Your task to perform on an android device: open wifi settings Image 0: 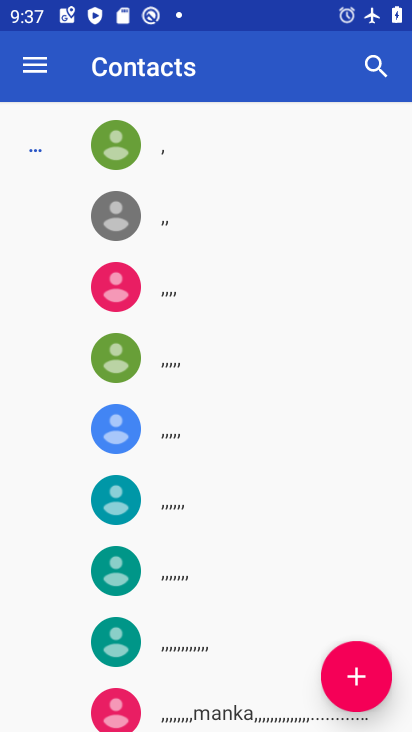
Step 0: press home button
Your task to perform on an android device: open wifi settings Image 1: 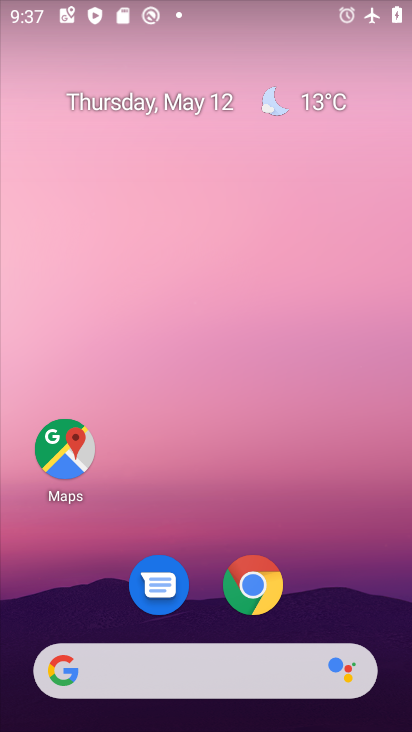
Step 1: drag from (232, 407) to (274, 49)
Your task to perform on an android device: open wifi settings Image 2: 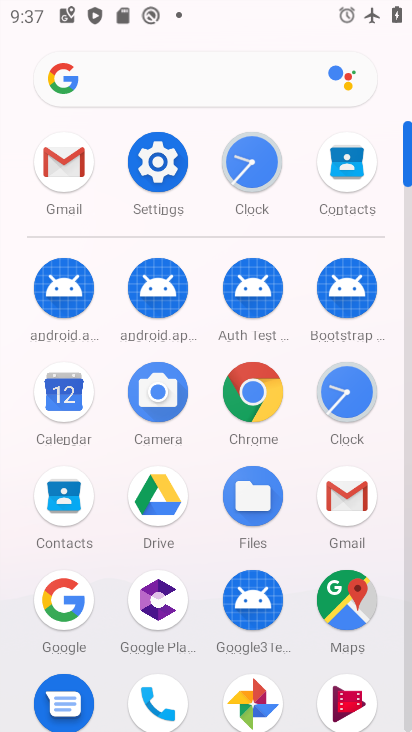
Step 2: click (158, 146)
Your task to perform on an android device: open wifi settings Image 3: 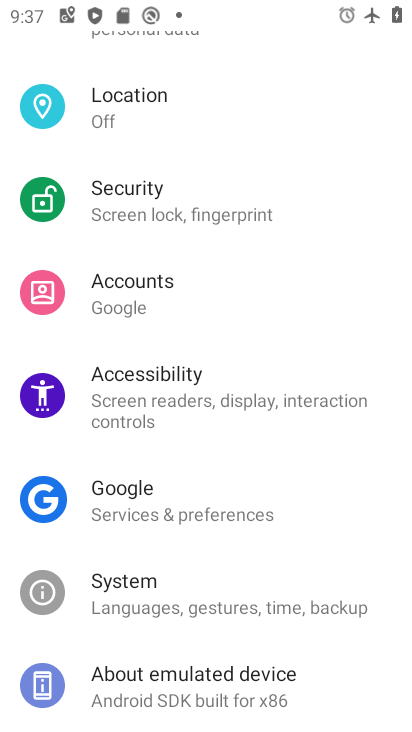
Step 3: drag from (183, 136) to (176, 666)
Your task to perform on an android device: open wifi settings Image 4: 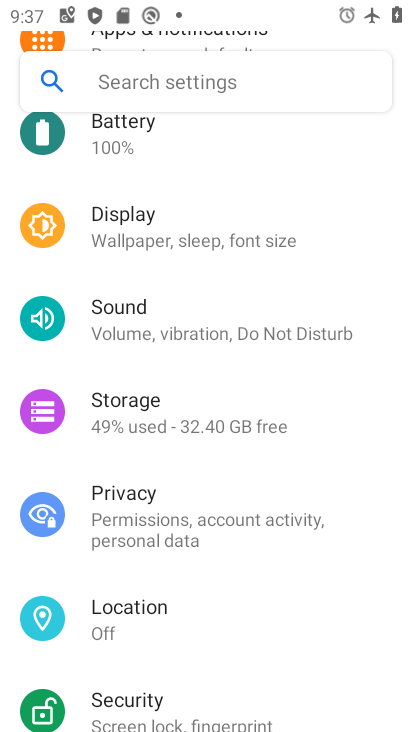
Step 4: drag from (177, 304) to (201, 696)
Your task to perform on an android device: open wifi settings Image 5: 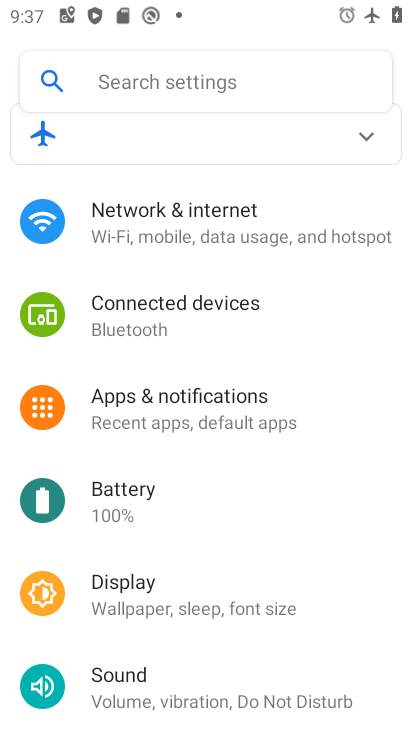
Step 5: click (206, 222)
Your task to perform on an android device: open wifi settings Image 6: 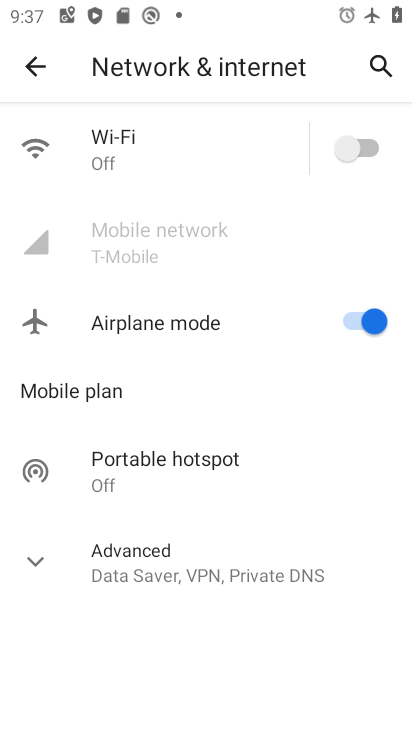
Step 6: click (365, 151)
Your task to perform on an android device: open wifi settings Image 7: 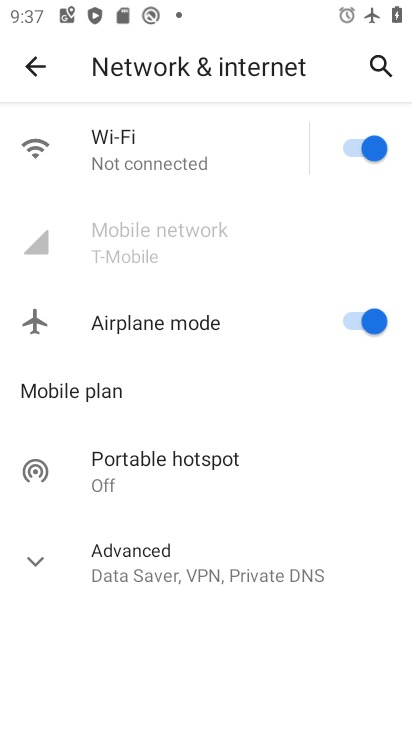
Step 7: task complete